Your task to perform on an android device: Add acer predator to the cart on costco, then select checkout. Image 0: 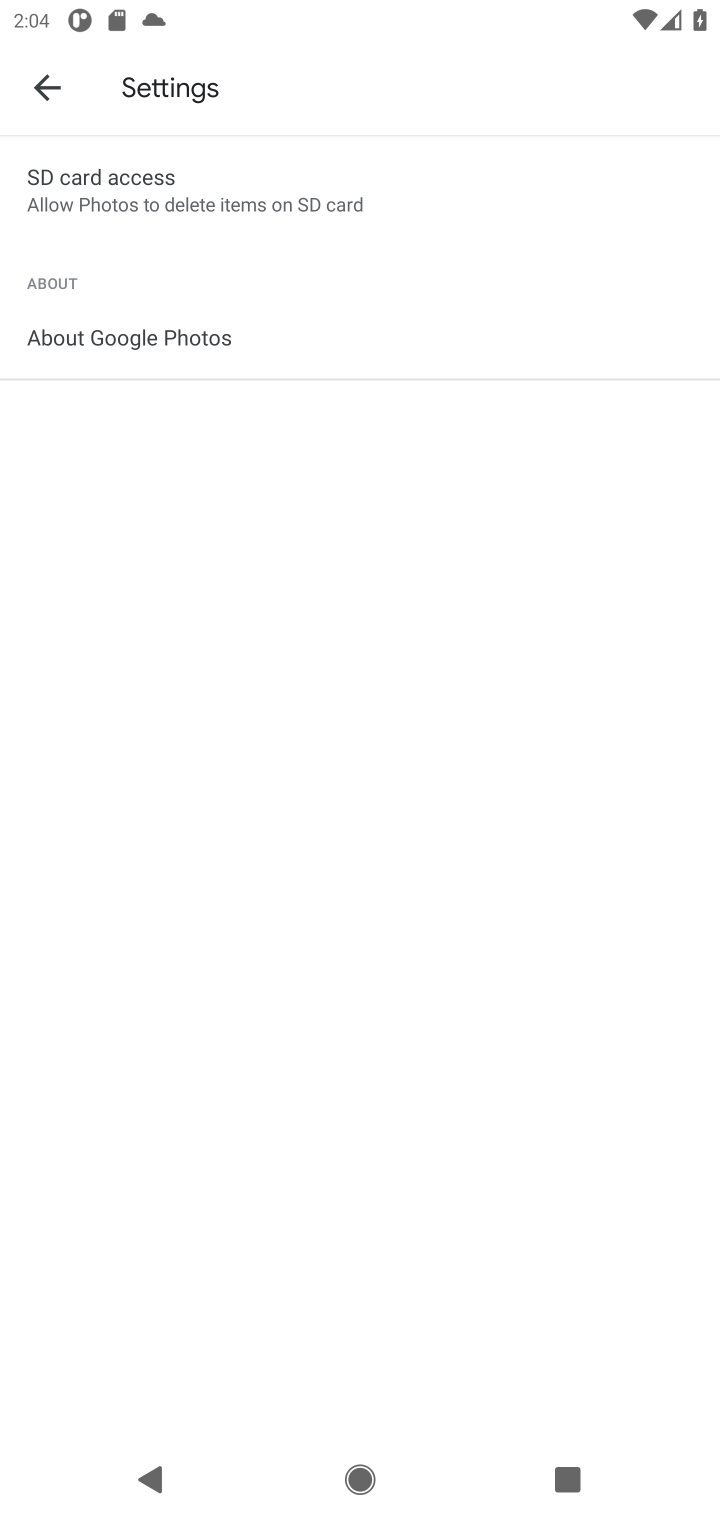
Step 0: press home button
Your task to perform on an android device: Add acer predator to the cart on costco, then select checkout. Image 1: 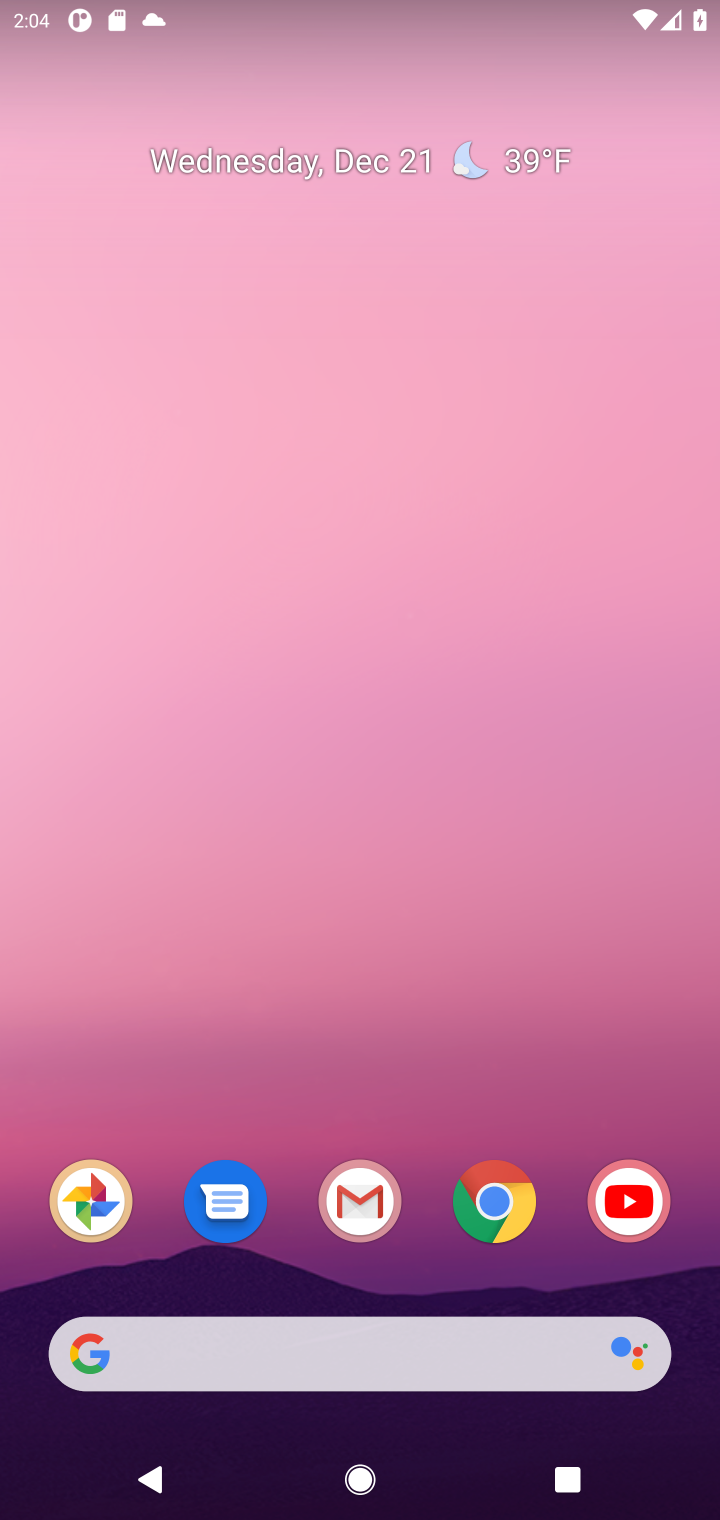
Step 1: click (506, 1209)
Your task to perform on an android device: Add acer predator to the cart on costco, then select checkout. Image 2: 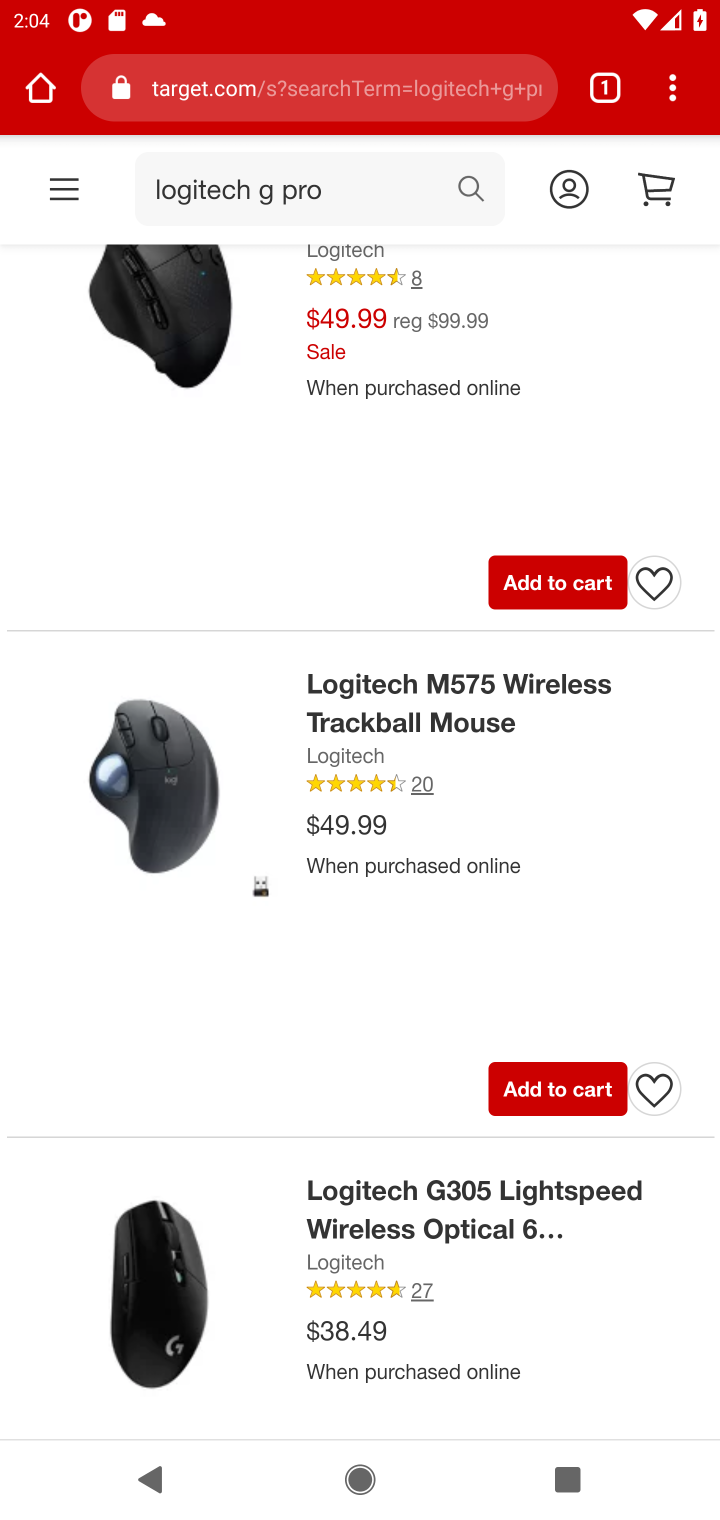
Step 2: click (215, 93)
Your task to perform on an android device: Add acer predator to the cart on costco, then select checkout. Image 3: 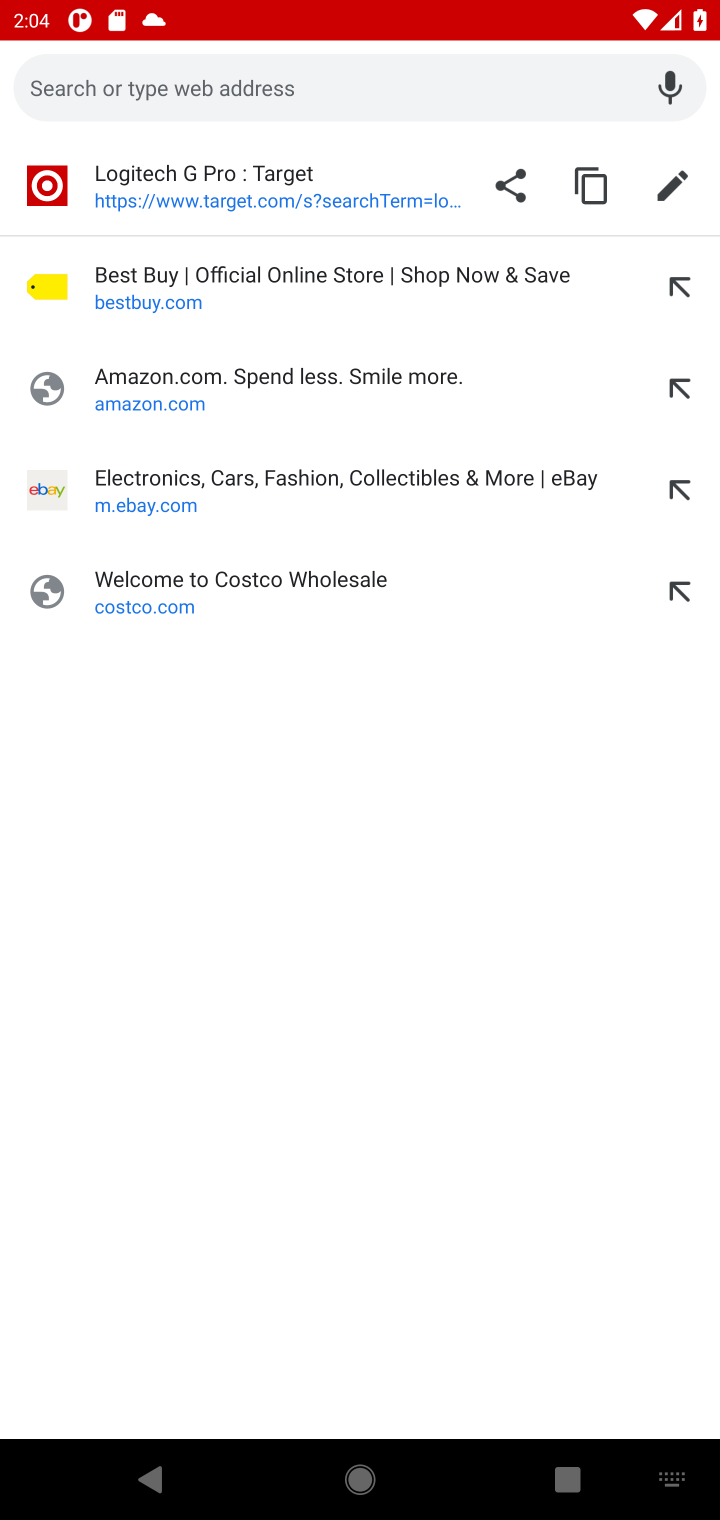
Step 3: click (101, 587)
Your task to perform on an android device: Add acer predator to the cart on costco, then select checkout. Image 4: 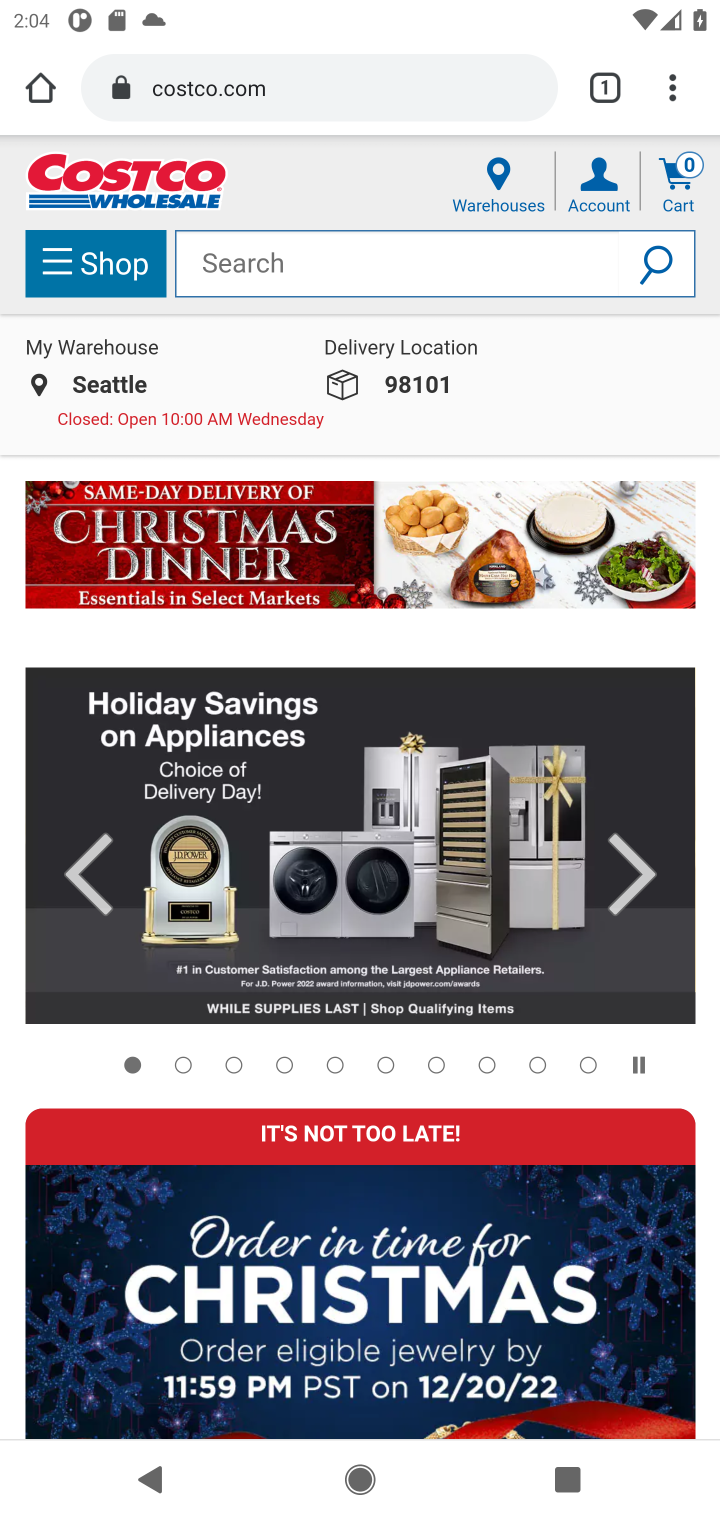
Step 4: click (286, 271)
Your task to perform on an android device: Add acer predator to the cart on costco, then select checkout. Image 5: 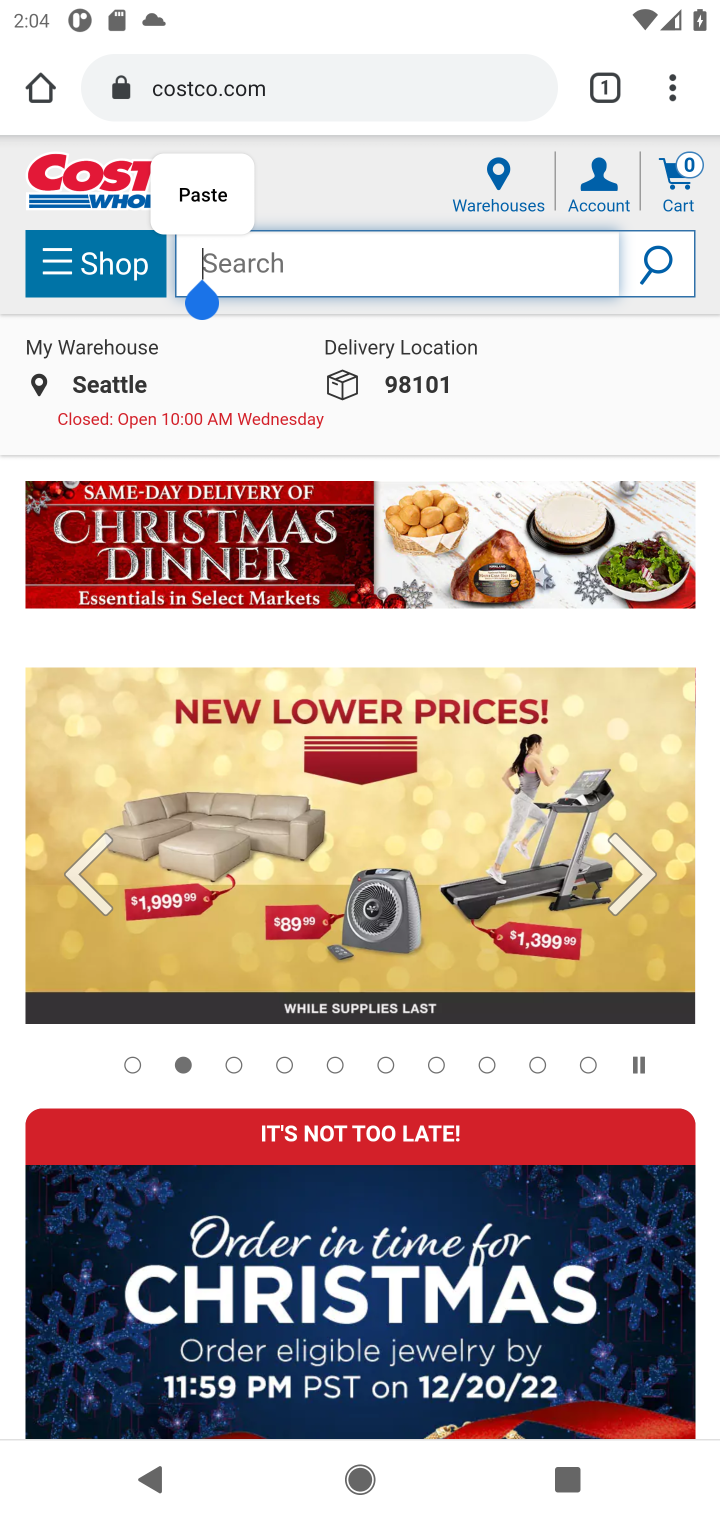
Step 5: type "acer predator"
Your task to perform on an android device: Add acer predator to the cart on costco, then select checkout. Image 6: 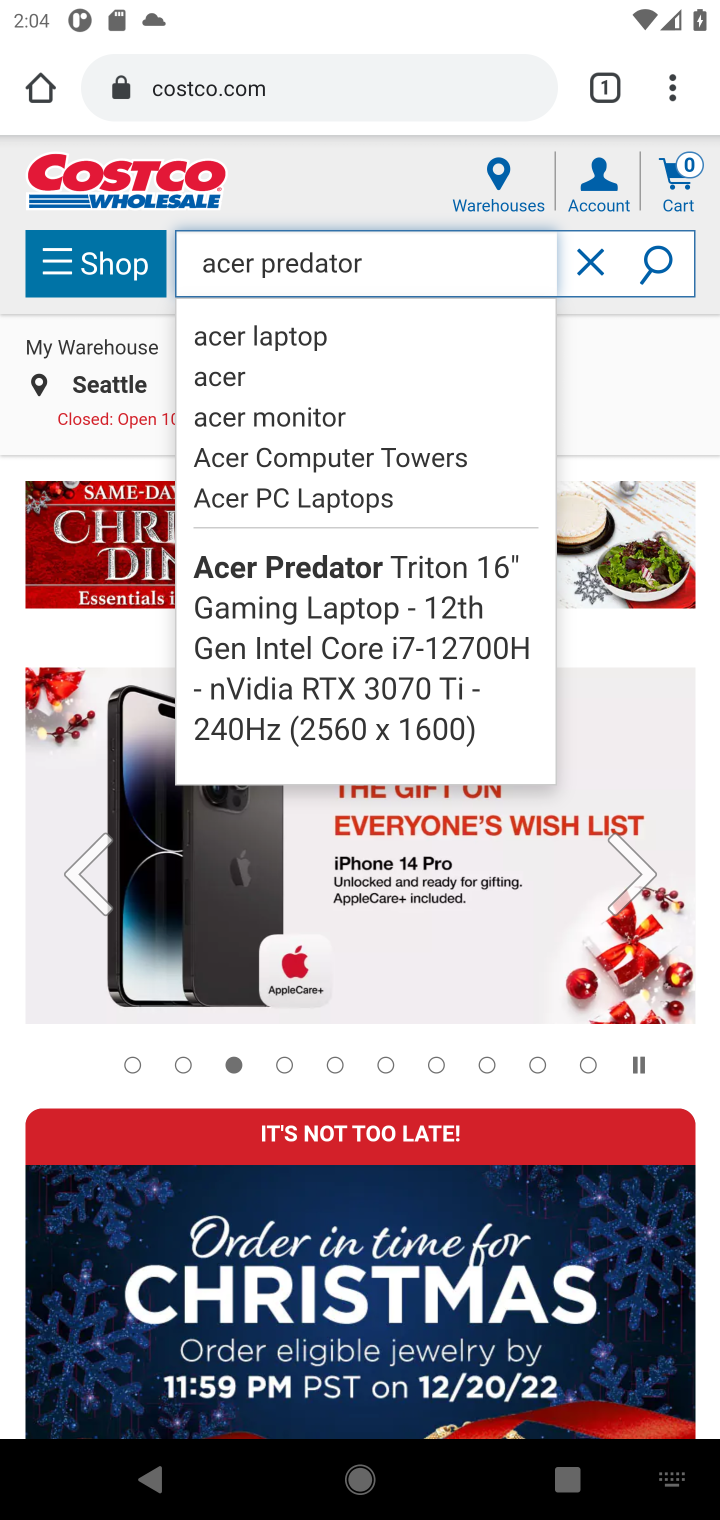
Step 6: click (656, 264)
Your task to perform on an android device: Add acer predator to the cart on costco, then select checkout. Image 7: 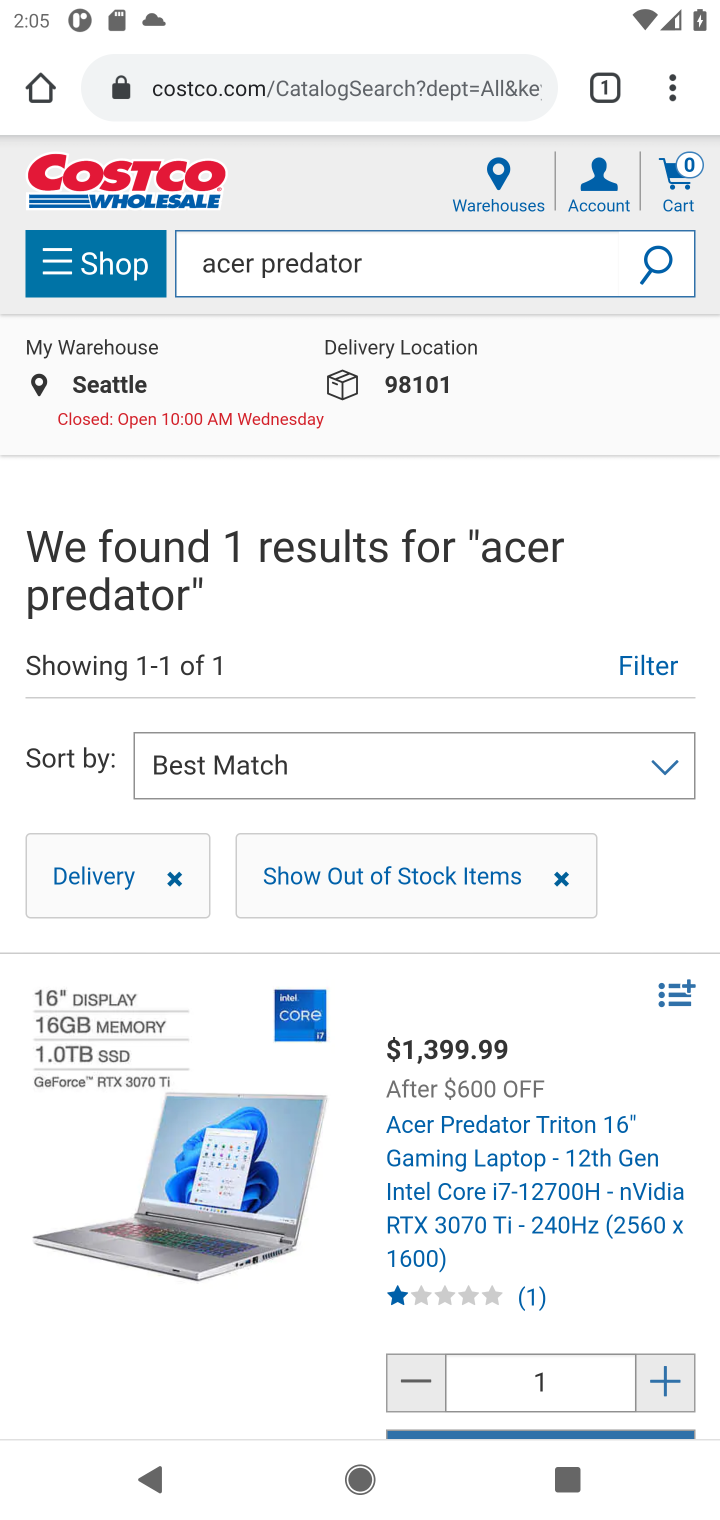
Step 7: drag from (302, 900) to (396, 520)
Your task to perform on an android device: Add acer predator to the cart on costco, then select checkout. Image 8: 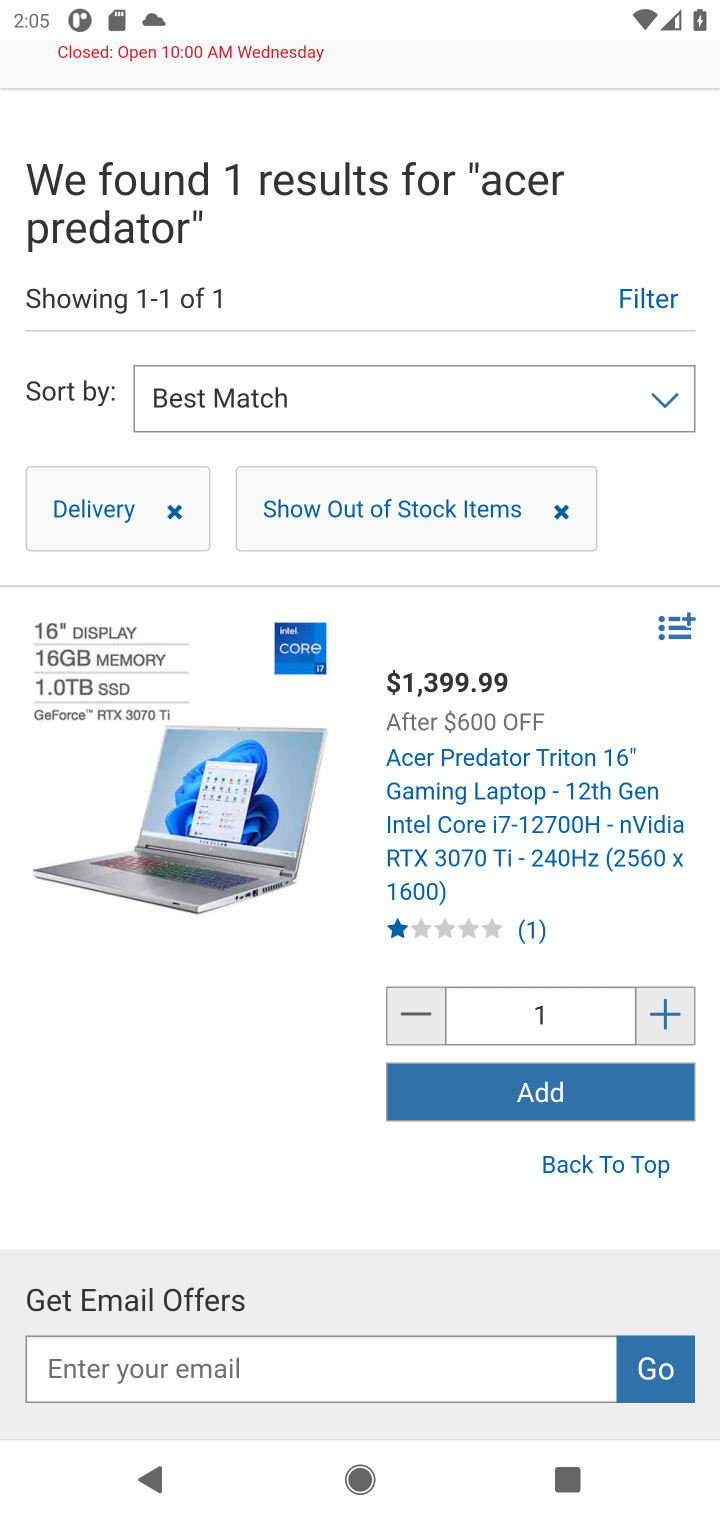
Step 8: click (571, 1086)
Your task to perform on an android device: Add acer predator to the cart on costco, then select checkout. Image 9: 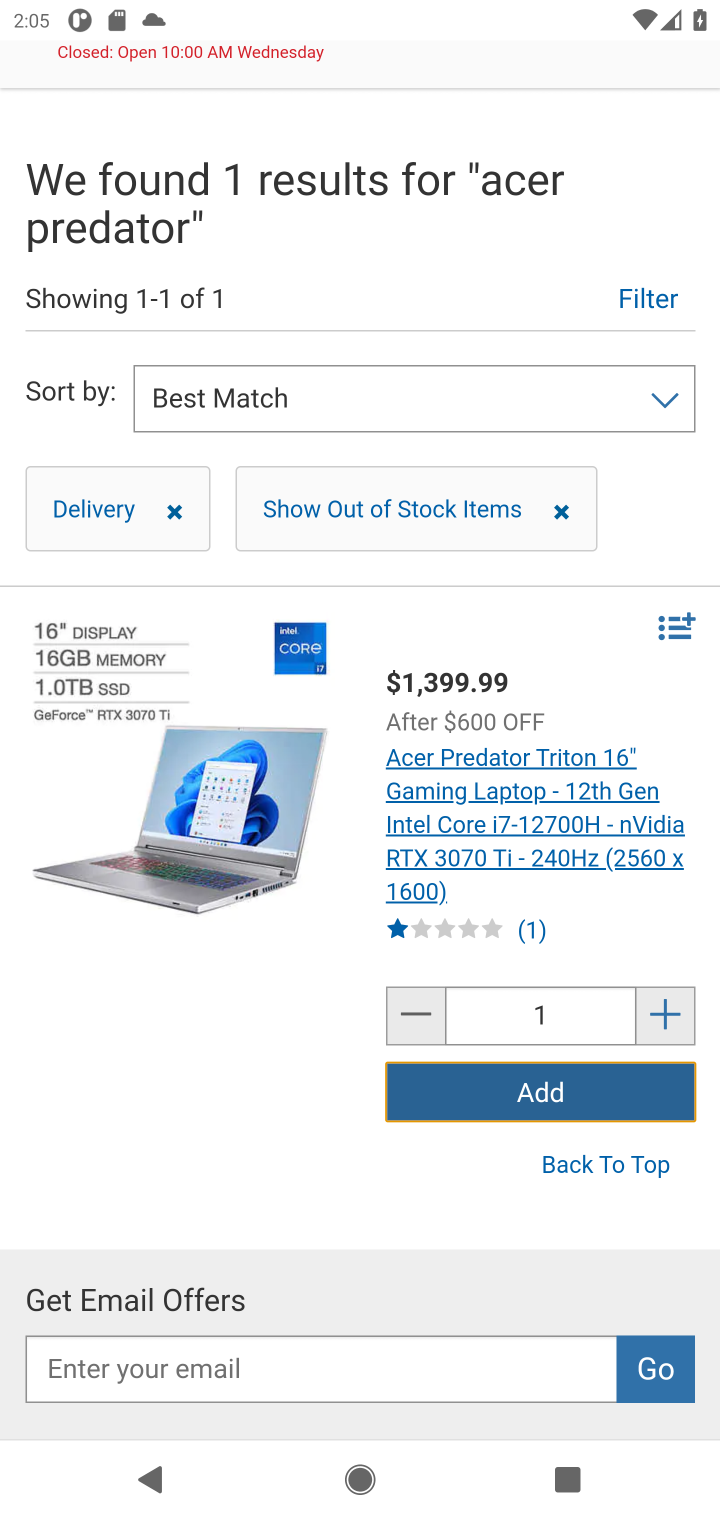
Step 9: click (564, 1101)
Your task to perform on an android device: Add acer predator to the cart on costco, then select checkout. Image 10: 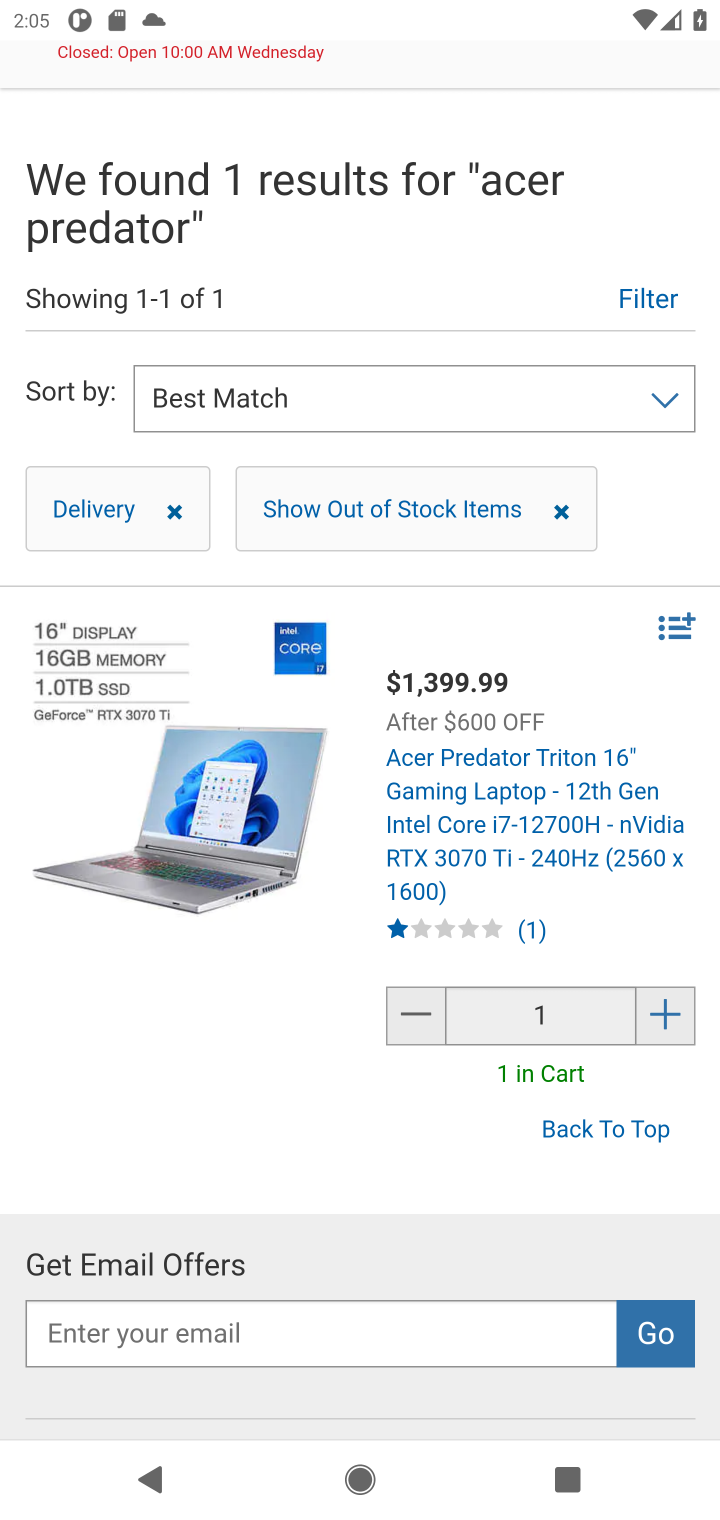
Step 10: drag from (522, 329) to (474, 987)
Your task to perform on an android device: Add acer predator to the cart on costco, then select checkout. Image 11: 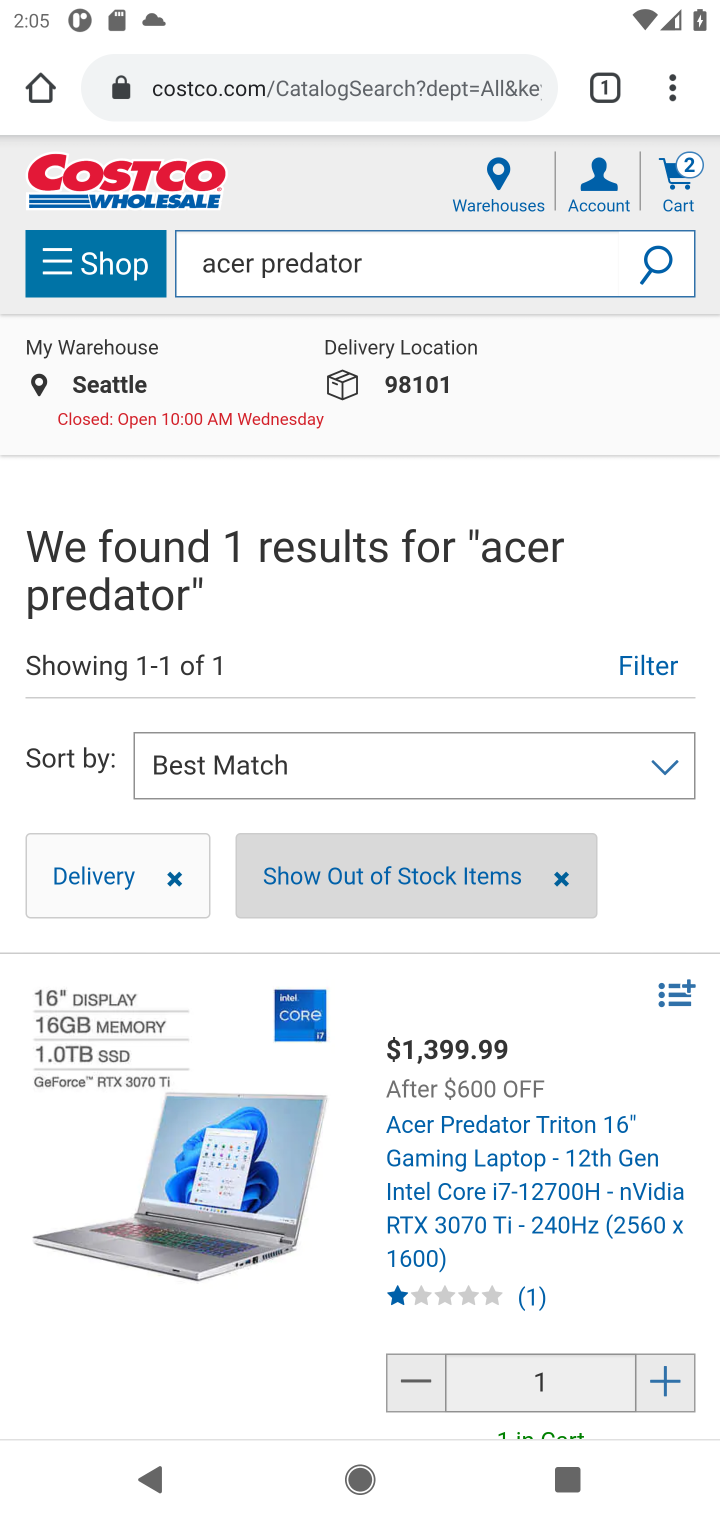
Step 11: click (676, 176)
Your task to perform on an android device: Add acer predator to the cart on costco, then select checkout. Image 12: 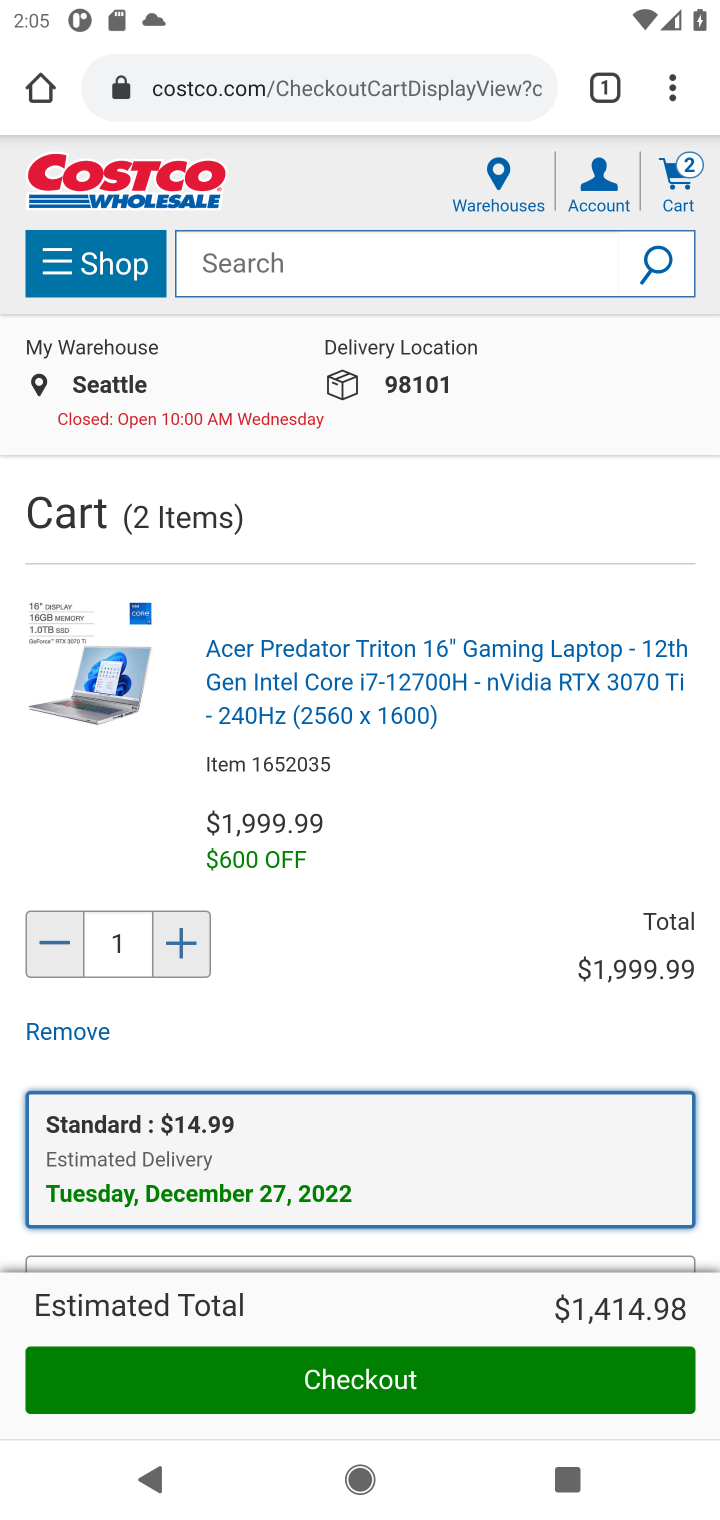
Step 12: click (343, 1378)
Your task to perform on an android device: Add acer predator to the cart on costco, then select checkout. Image 13: 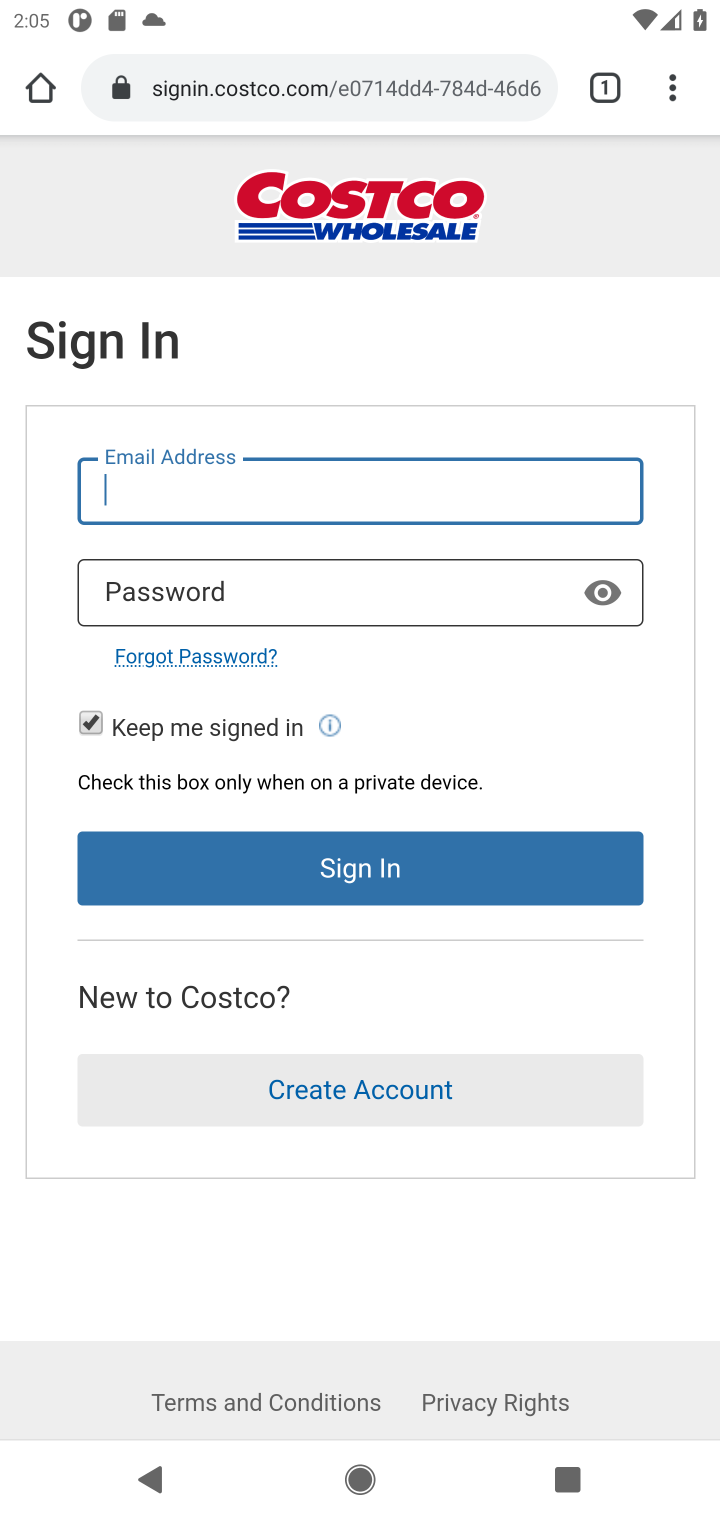
Step 13: task complete